Your task to perform on an android device: Open Yahoo.com Image 0: 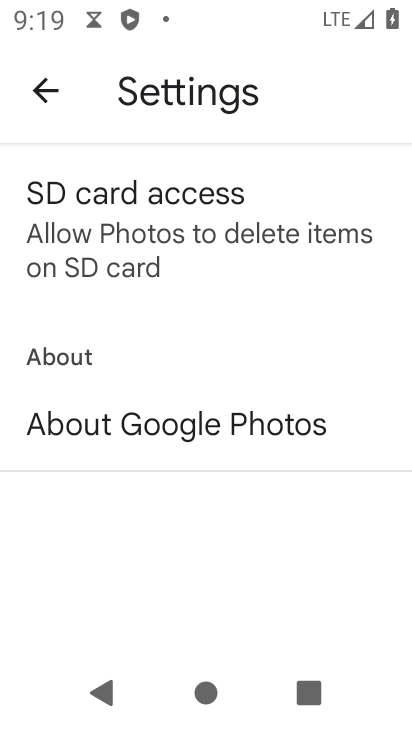
Step 0: press home button
Your task to perform on an android device: Open Yahoo.com Image 1: 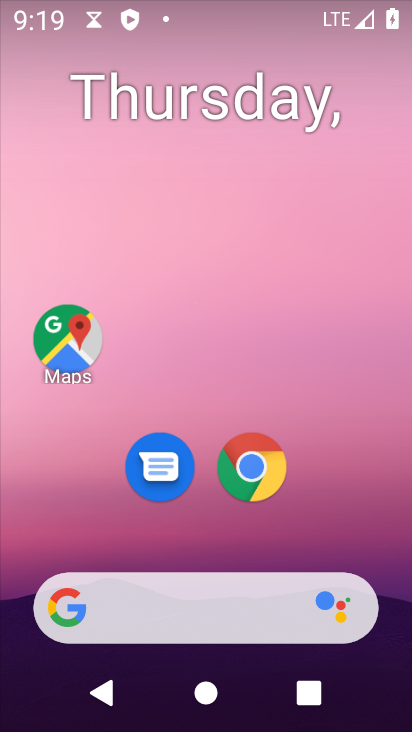
Step 1: drag from (332, 530) to (343, 71)
Your task to perform on an android device: Open Yahoo.com Image 2: 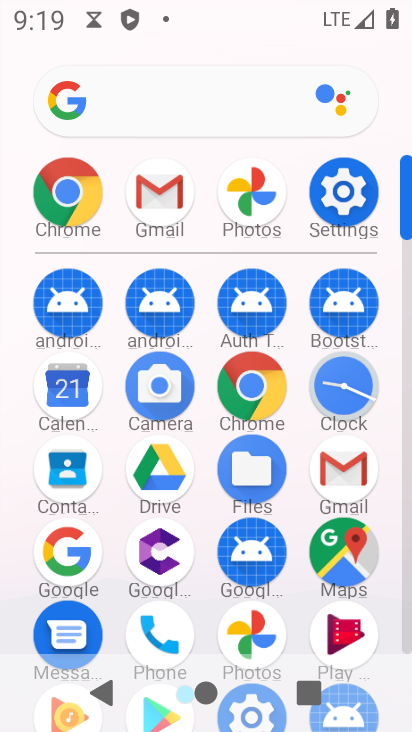
Step 2: click (67, 183)
Your task to perform on an android device: Open Yahoo.com Image 3: 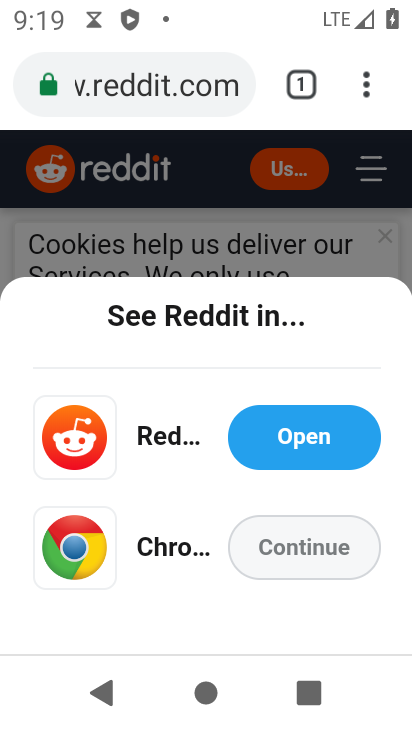
Step 3: click (130, 81)
Your task to perform on an android device: Open Yahoo.com Image 4: 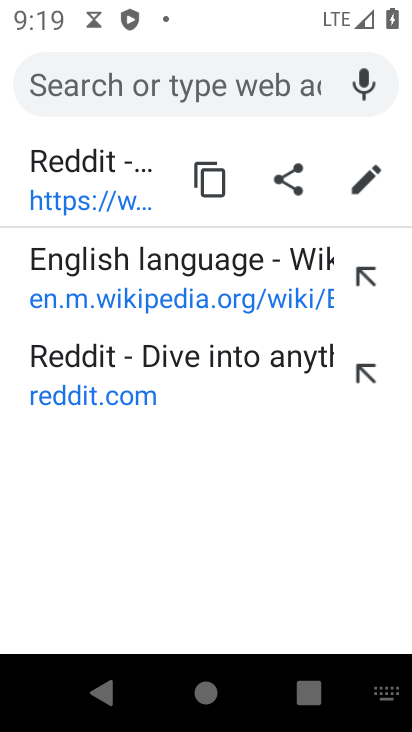
Step 4: type "yahoo.com"
Your task to perform on an android device: Open Yahoo.com Image 5: 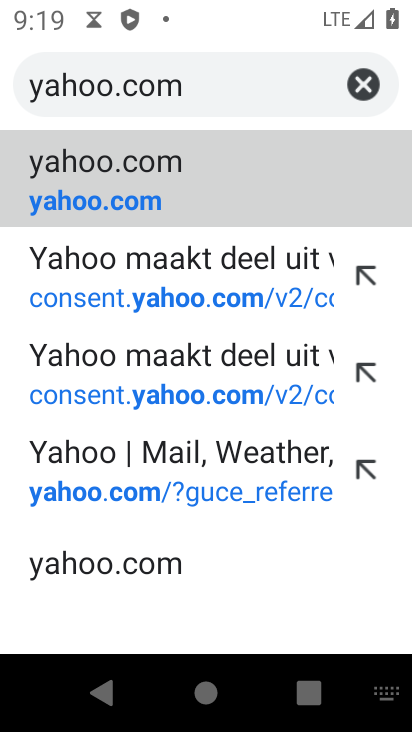
Step 5: click (39, 184)
Your task to perform on an android device: Open Yahoo.com Image 6: 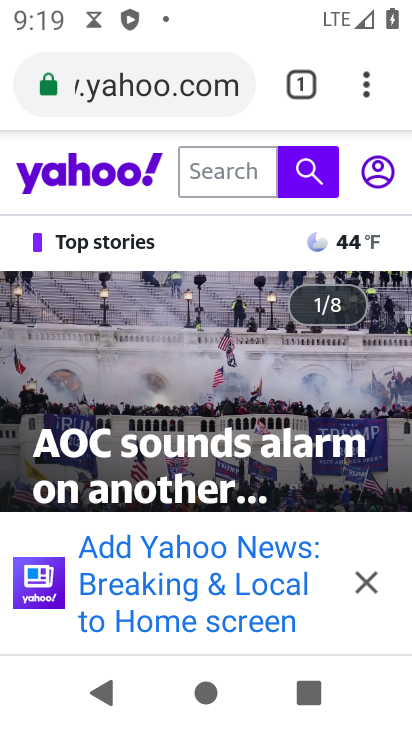
Step 6: task complete